Your task to perform on an android device: choose inbox layout in the gmail app Image 0: 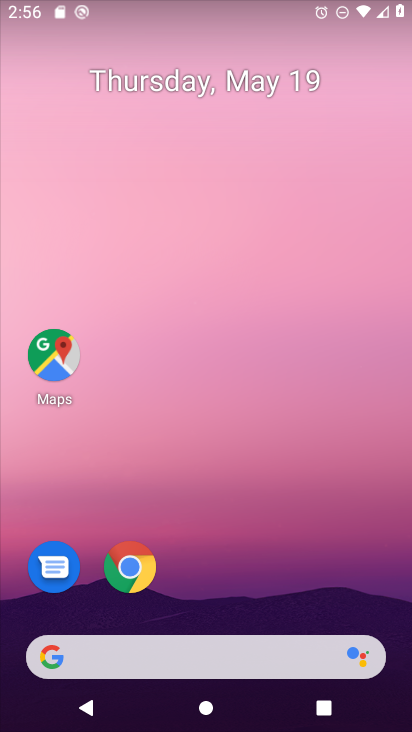
Step 0: drag from (278, 545) to (222, 93)
Your task to perform on an android device: choose inbox layout in the gmail app Image 1: 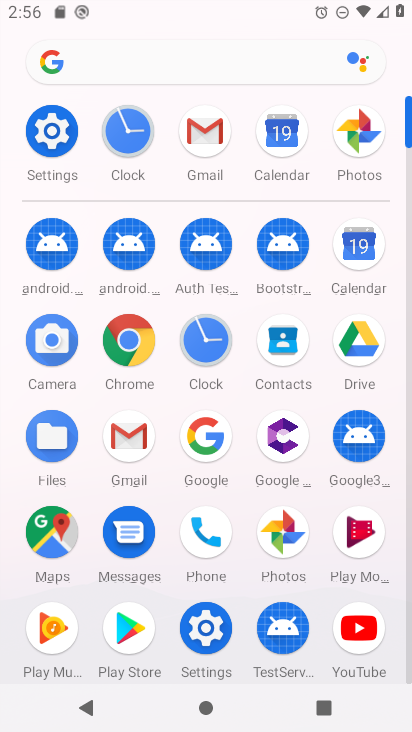
Step 1: click (205, 130)
Your task to perform on an android device: choose inbox layout in the gmail app Image 2: 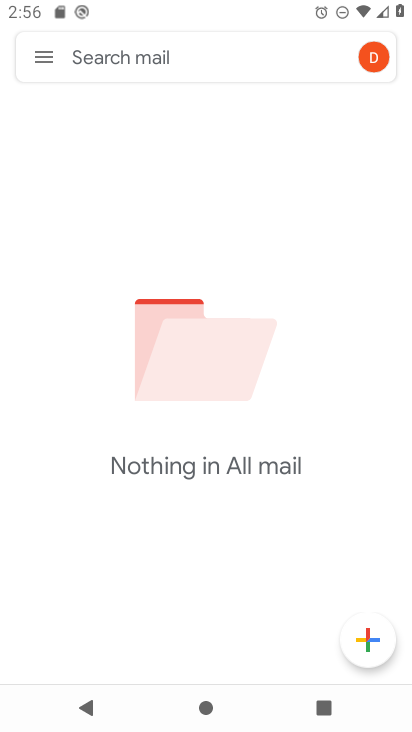
Step 2: click (44, 53)
Your task to perform on an android device: choose inbox layout in the gmail app Image 3: 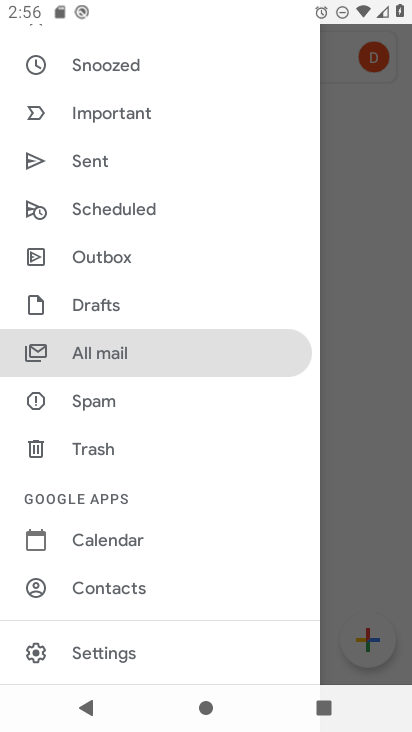
Step 3: click (145, 646)
Your task to perform on an android device: choose inbox layout in the gmail app Image 4: 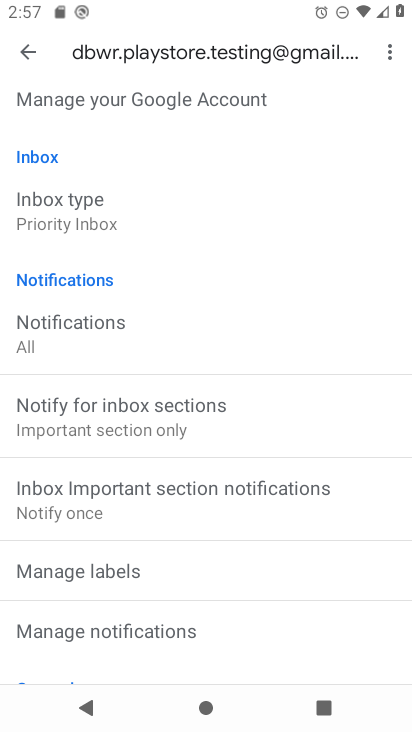
Step 4: click (80, 203)
Your task to perform on an android device: choose inbox layout in the gmail app Image 5: 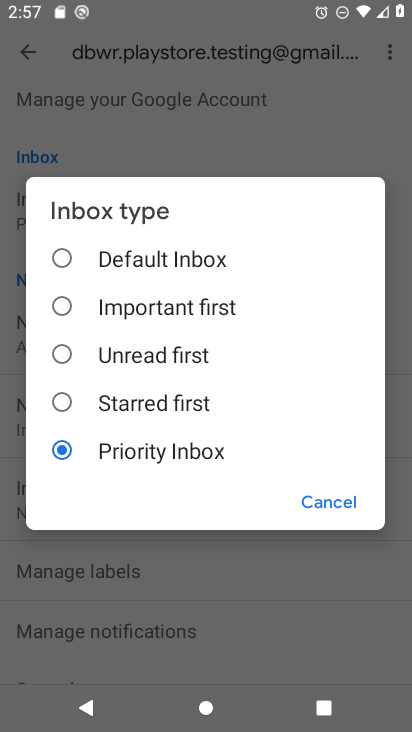
Step 5: click (62, 246)
Your task to perform on an android device: choose inbox layout in the gmail app Image 6: 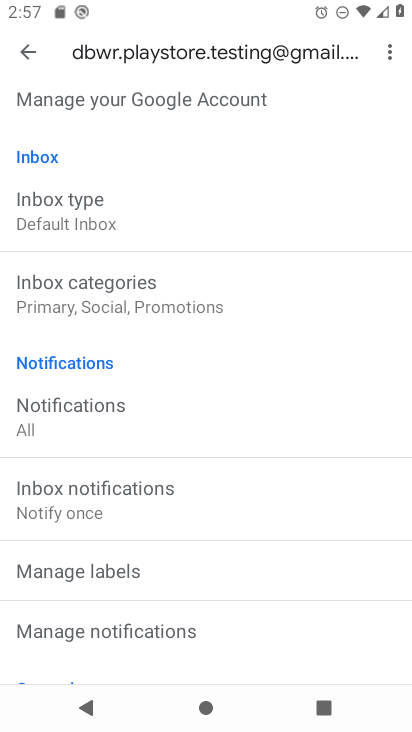
Step 6: task complete